Your task to perform on an android device: see creations saved in the google photos Image 0: 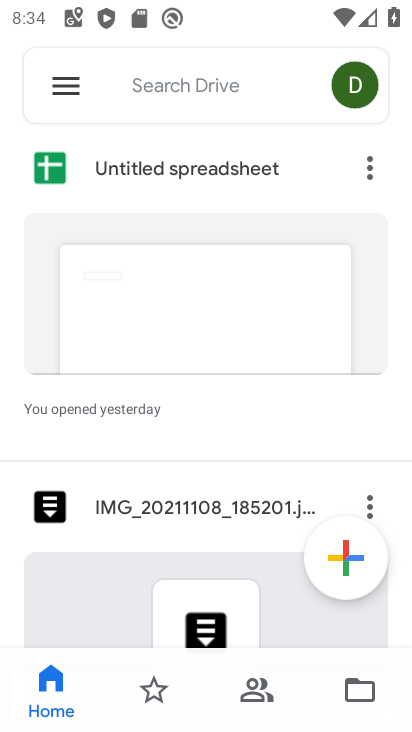
Step 0: press home button
Your task to perform on an android device: see creations saved in the google photos Image 1: 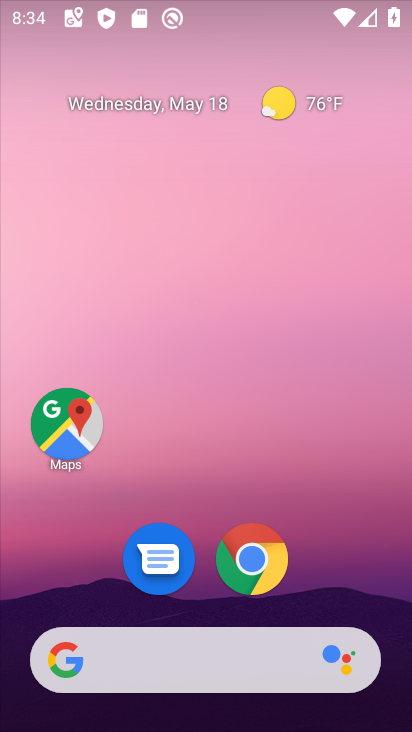
Step 1: drag from (195, 593) to (288, 106)
Your task to perform on an android device: see creations saved in the google photos Image 2: 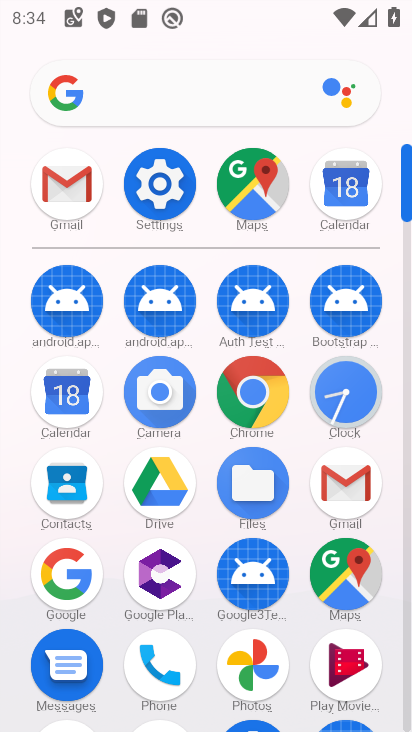
Step 2: click (254, 666)
Your task to perform on an android device: see creations saved in the google photos Image 3: 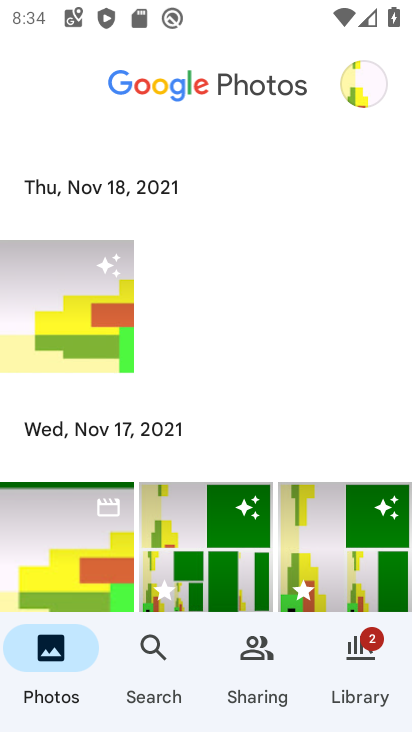
Step 3: click (160, 663)
Your task to perform on an android device: see creations saved in the google photos Image 4: 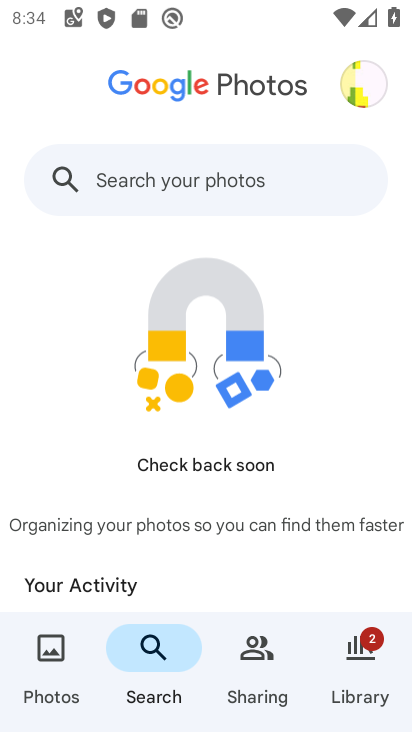
Step 4: drag from (194, 520) to (240, 15)
Your task to perform on an android device: see creations saved in the google photos Image 5: 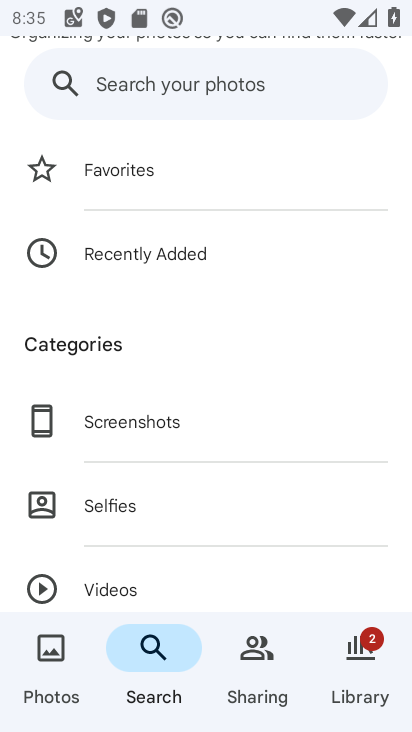
Step 5: drag from (252, 536) to (269, 66)
Your task to perform on an android device: see creations saved in the google photos Image 6: 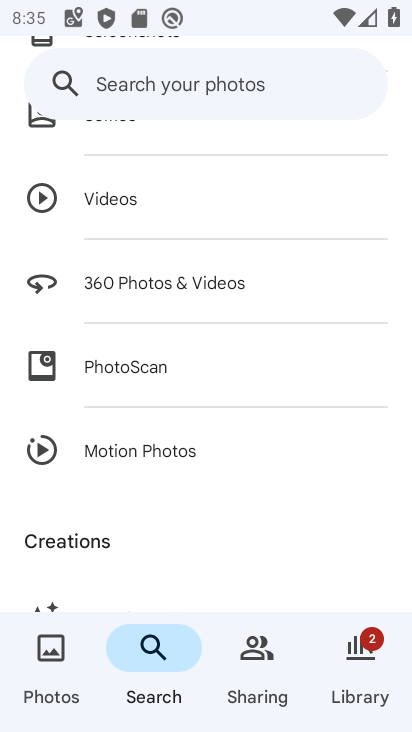
Step 6: drag from (157, 583) to (198, 237)
Your task to perform on an android device: see creations saved in the google photos Image 7: 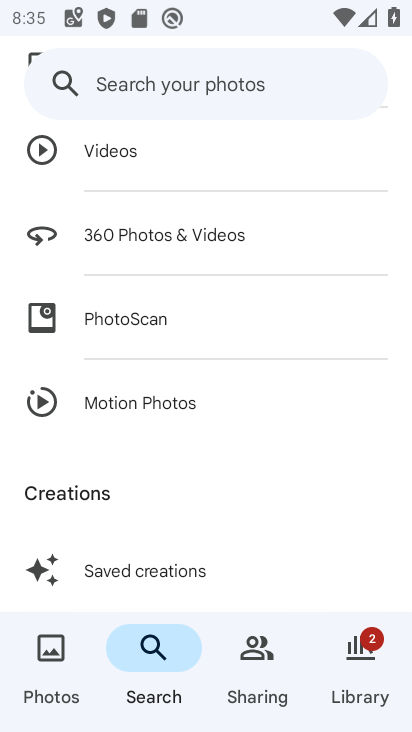
Step 7: click (116, 574)
Your task to perform on an android device: see creations saved in the google photos Image 8: 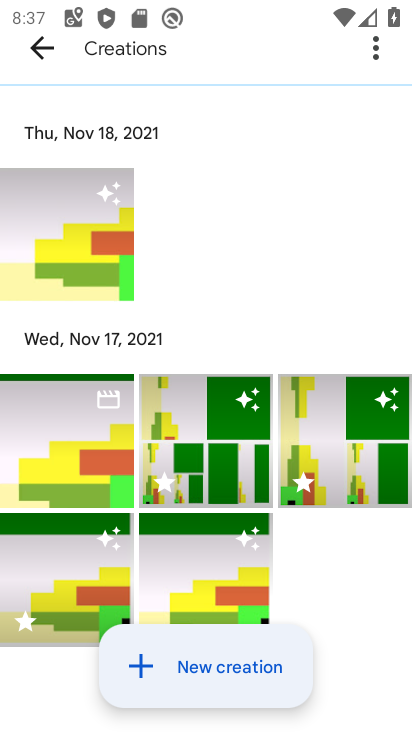
Step 8: task complete